Your task to perform on an android device: open a new tab in the chrome app Image 0: 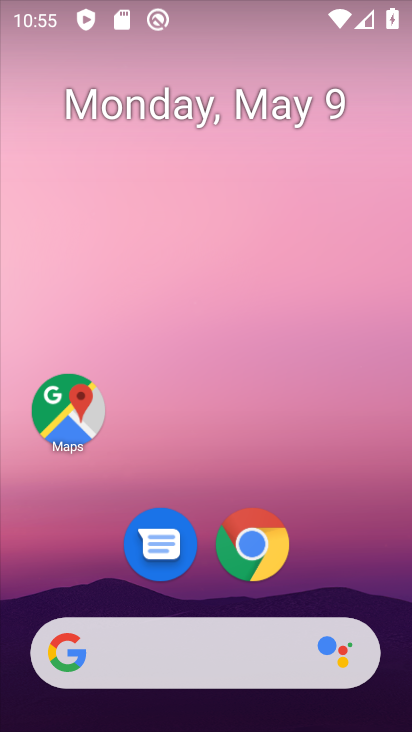
Step 0: click (258, 536)
Your task to perform on an android device: open a new tab in the chrome app Image 1: 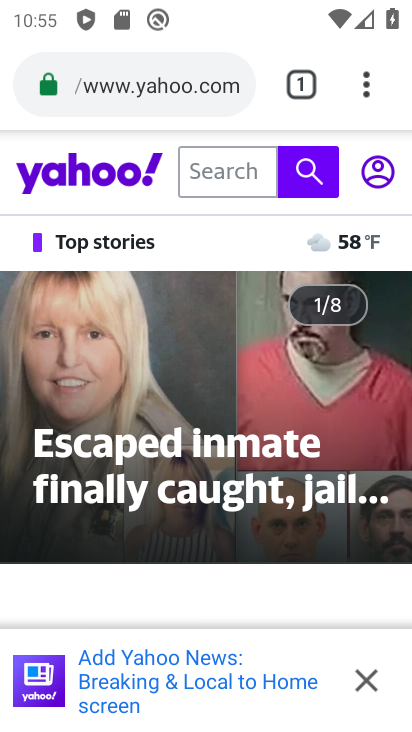
Step 1: click (307, 83)
Your task to perform on an android device: open a new tab in the chrome app Image 2: 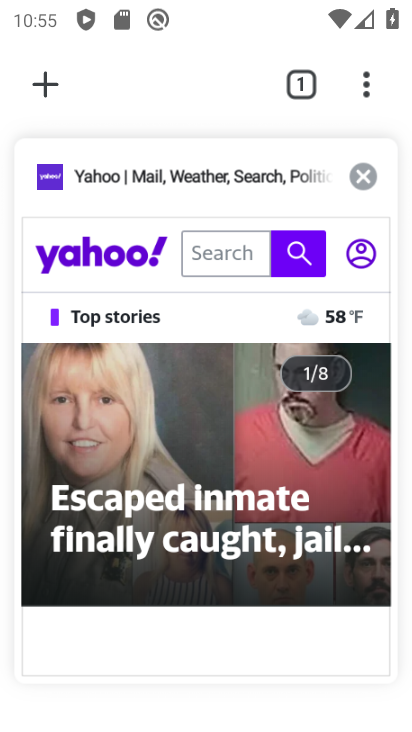
Step 2: click (36, 85)
Your task to perform on an android device: open a new tab in the chrome app Image 3: 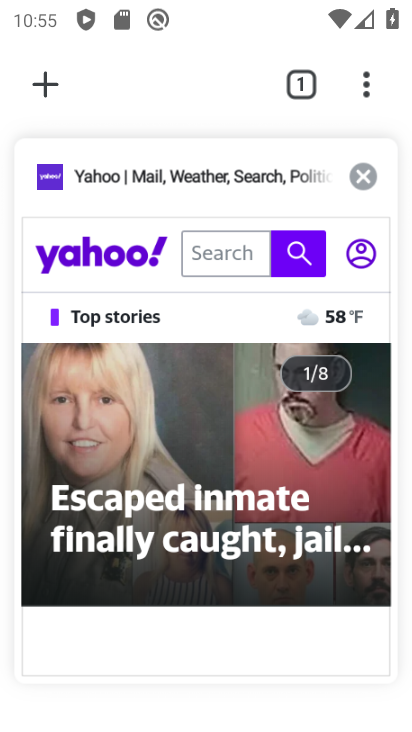
Step 3: click (48, 89)
Your task to perform on an android device: open a new tab in the chrome app Image 4: 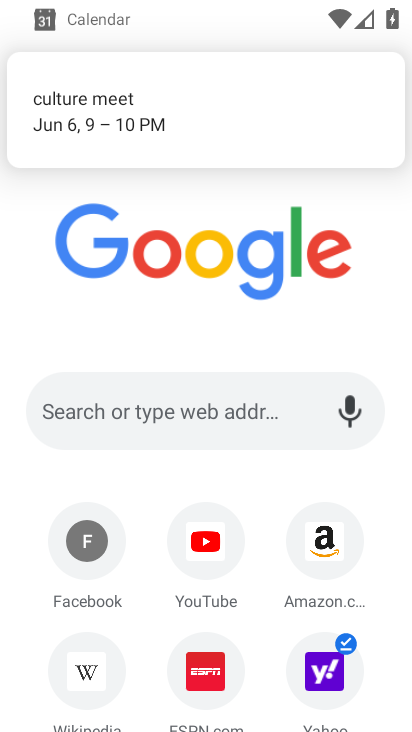
Step 4: task complete